Your task to perform on an android device: Go to CNN.com Image 0: 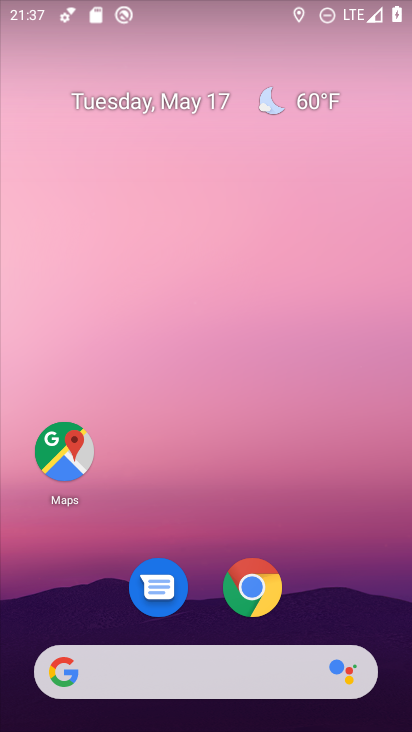
Step 0: drag from (224, 485) to (130, 175)
Your task to perform on an android device: Go to CNN.com Image 1: 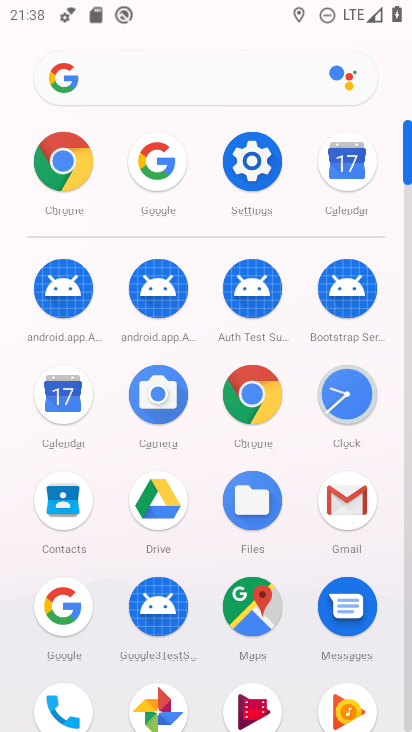
Step 1: click (245, 417)
Your task to perform on an android device: Go to CNN.com Image 2: 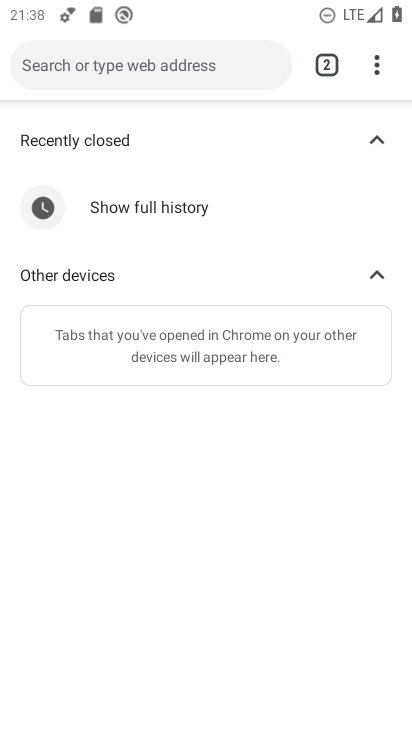
Step 2: click (108, 75)
Your task to perform on an android device: Go to CNN.com Image 3: 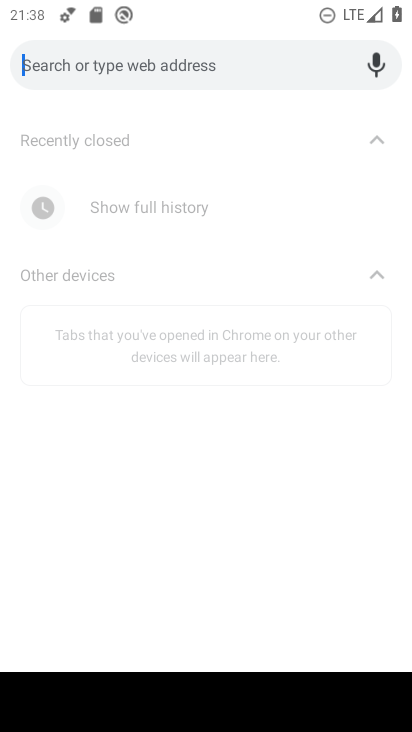
Step 3: drag from (237, 728) to (395, 556)
Your task to perform on an android device: Go to CNN.com Image 4: 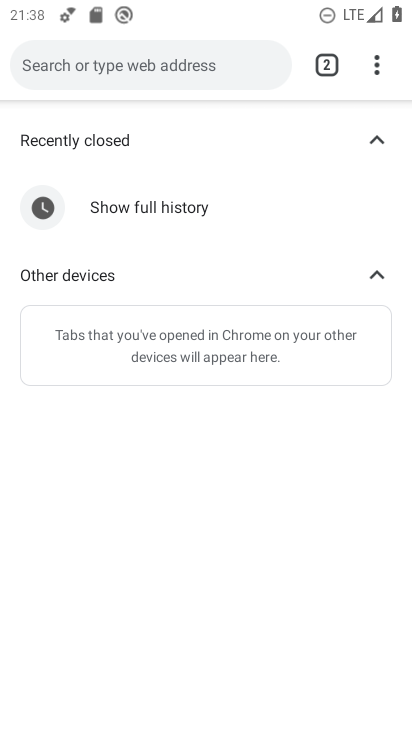
Step 4: click (46, 73)
Your task to perform on an android device: Go to CNN.com Image 5: 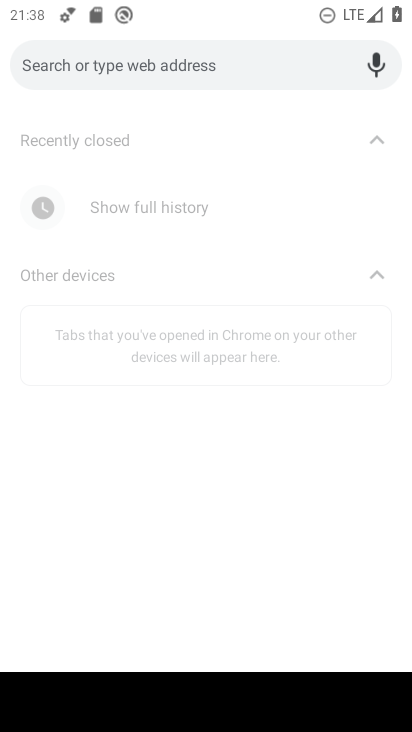
Step 5: type "CNN.com"
Your task to perform on an android device: Go to CNN.com Image 6: 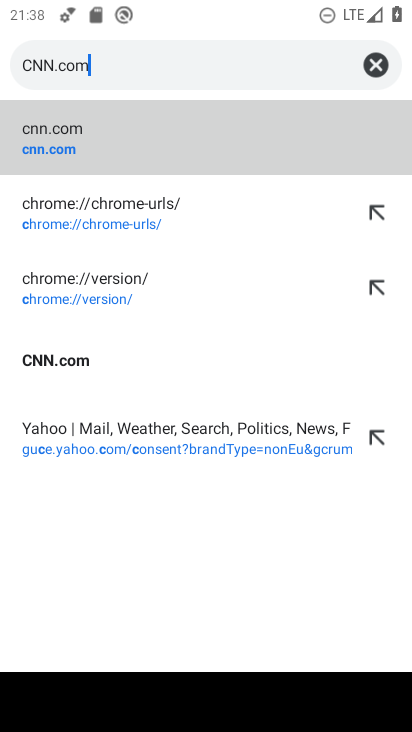
Step 6: type ""
Your task to perform on an android device: Go to CNN.com Image 7: 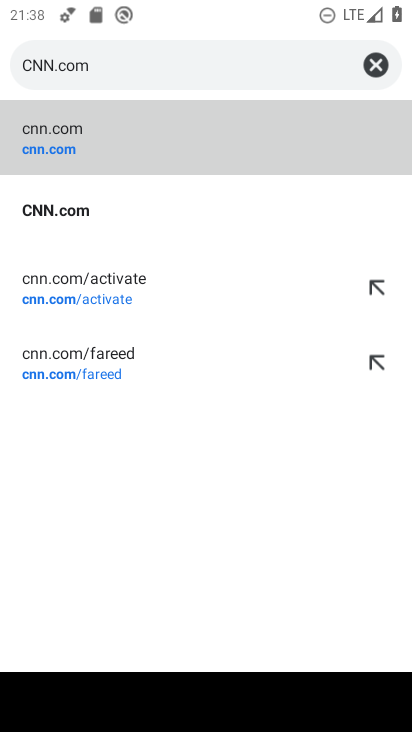
Step 7: click (80, 146)
Your task to perform on an android device: Go to CNN.com Image 8: 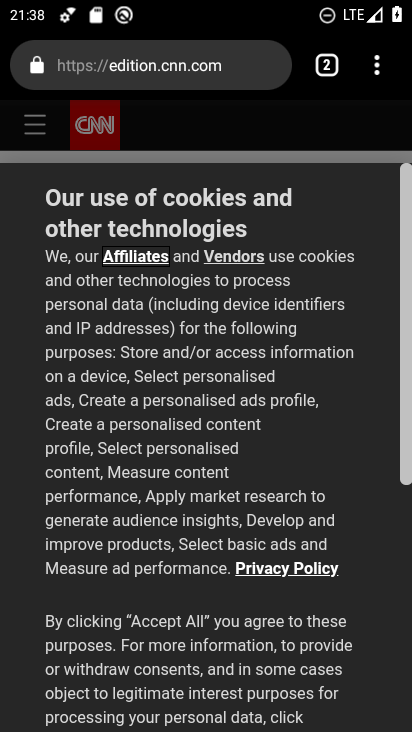
Step 8: drag from (262, 638) to (195, 7)
Your task to perform on an android device: Go to CNN.com Image 9: 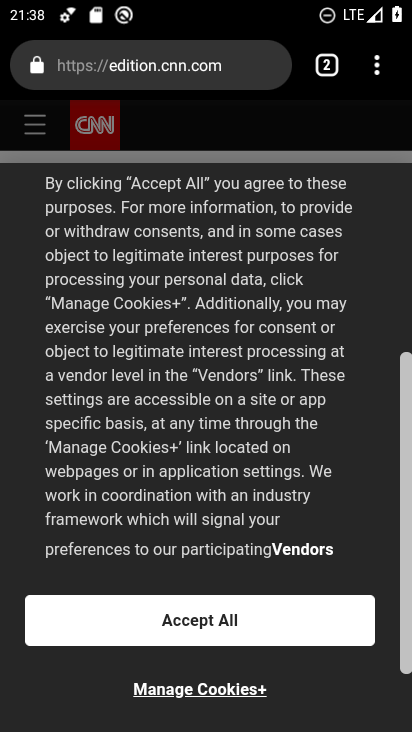
Step 9: click (252, 620)
Your task to perform on an android device: Go to CNN.com Image 10: 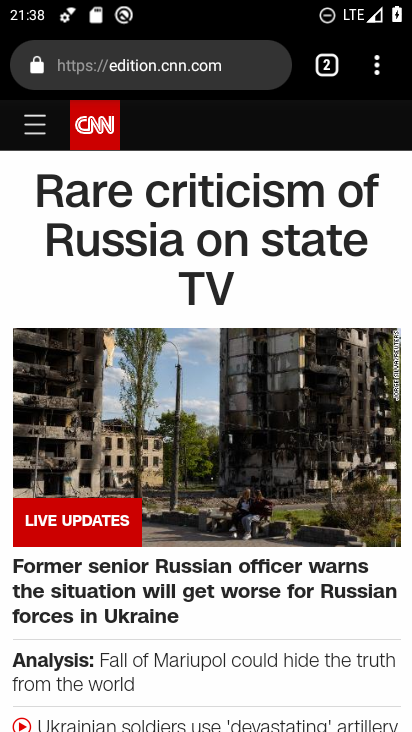
Step 10: task complete